Your task to perform on an android device: turn on data saver in the chrome app Image 0: 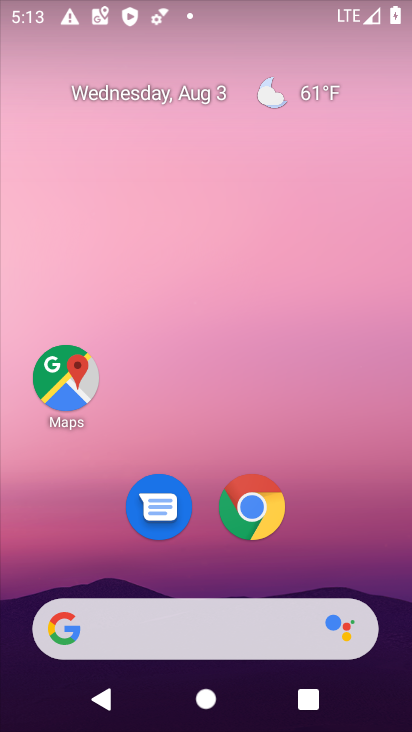
Step 0: drag from (320, 520) to (348, 93)
Your task to perform on an android device: turn on data saver in the chrome app Image 1: 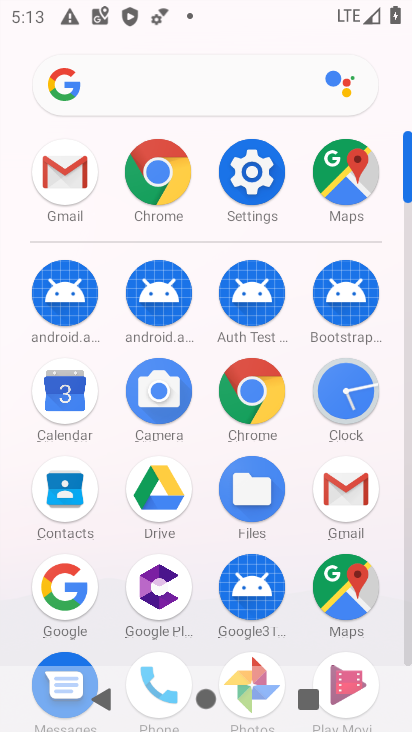
Step 1: click (258, 393)
Your task to perform on an android device: turn on data saver in the chrome app Image 2: 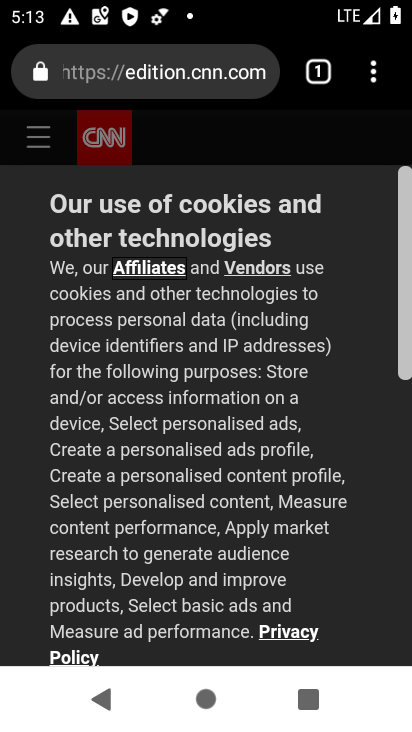
Step 2: drag from (385, 63) to (174, 502)
Your task to perform on an android device: turn on data saver in the chrome app Image 3: 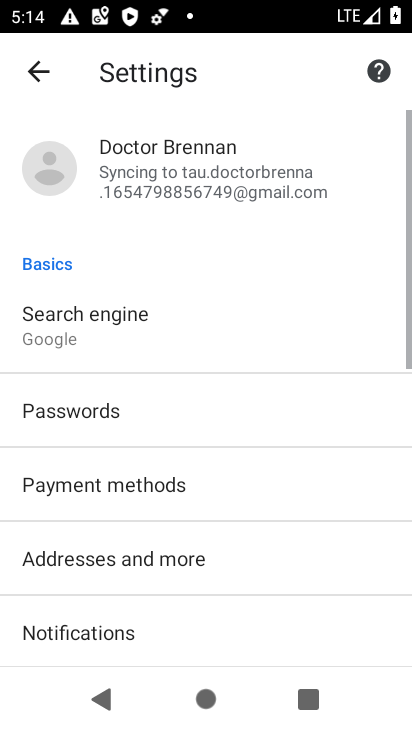
Step 3: drag from (218, 444) to (362, 78)
Your task to perform on an android device: turn on data saver in the chrome app Image 4: 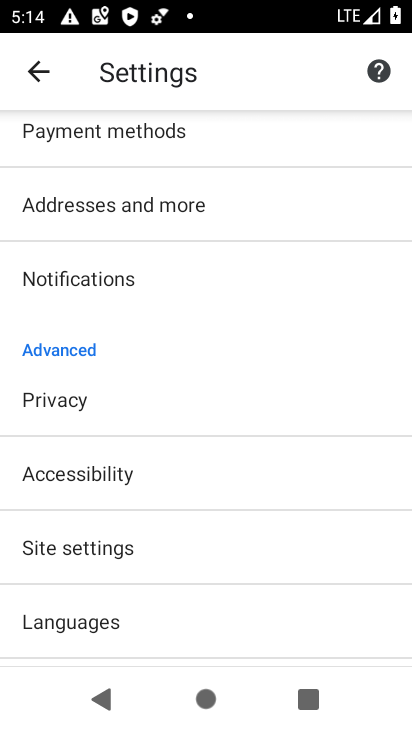
Step 4: drag from (180, 552) to (366, 196)
Your task to perform on an android device: turn on data saver in the chrome app Image 5: 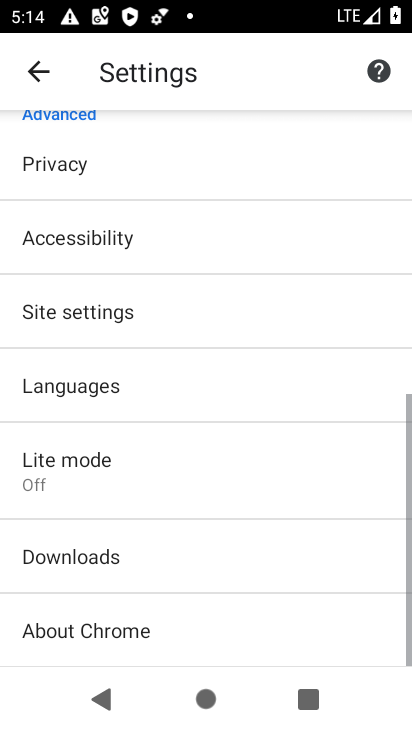
Step 5: click (136, 482)
Your task to perform on an android device: turn on data saver in the chrome app Image 6: 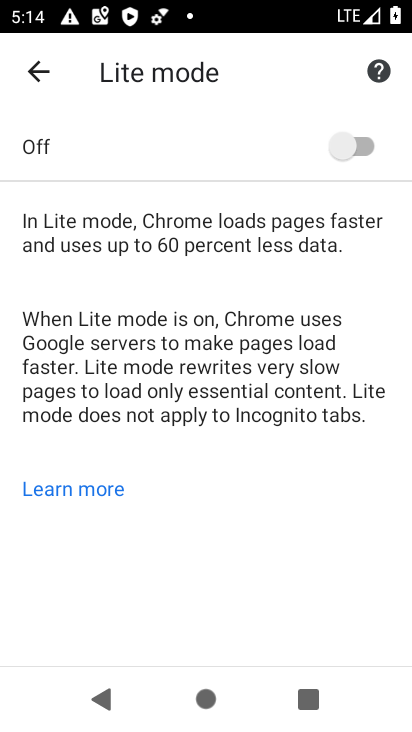
Step 6: click (365, 137)
Your task to perform on an android device: turn on data saver in the chrome app Image 7: 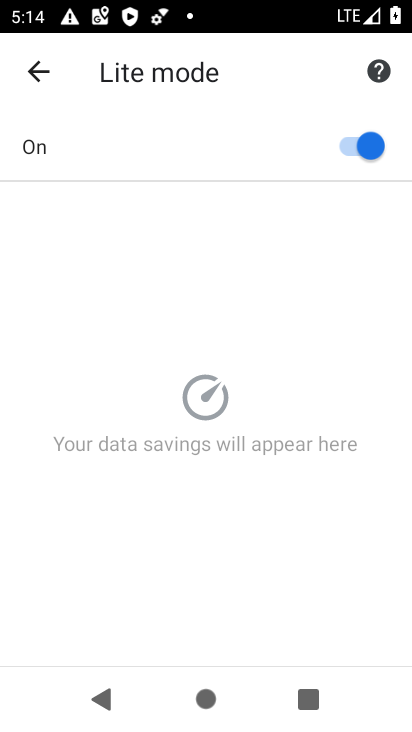
Step 7: task complete